Your task to perform on an android device: turn off location history Image 0: 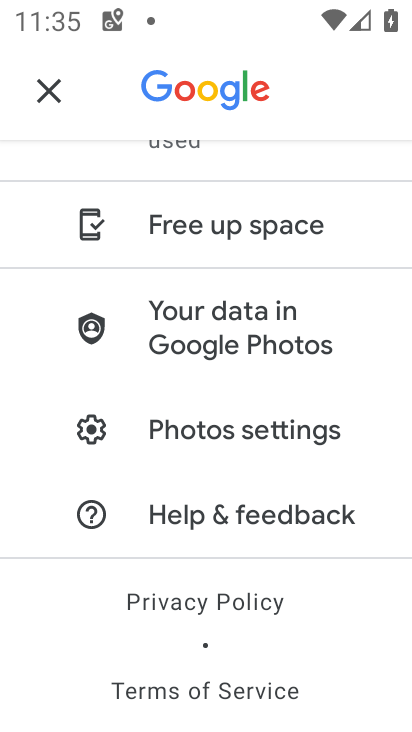
Step 0: press home button
Your task to perform on an android device: turn off location history Image 1: 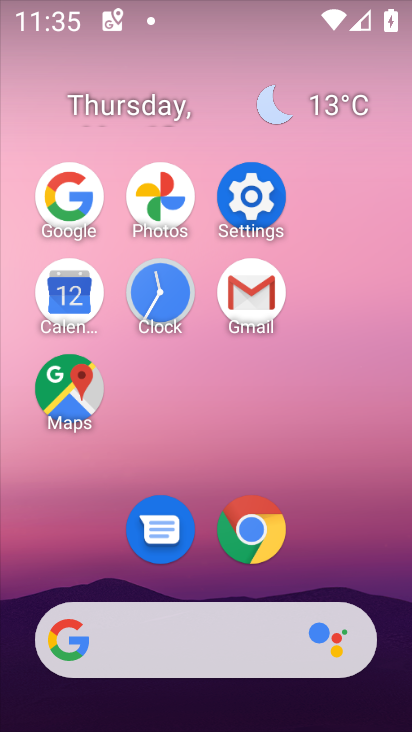
Step 1: click (212, 209)
Your task to perform on an android device: turn off location history Image 2: 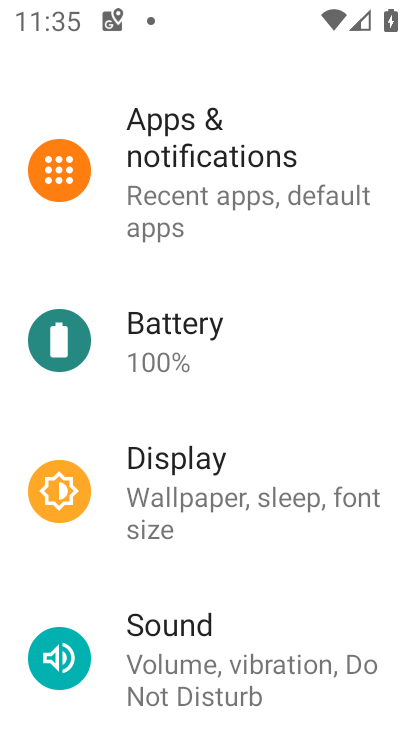
Step 2: drag from (251, 580) to (314, 144)
Your task to perform on an android device: turn off location history Image 3: 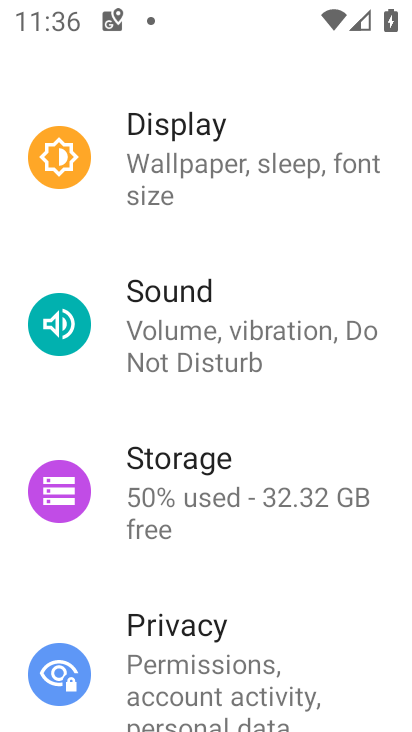
Step 3: drag from (344, 611) to (360, 206)
Your task to perform on an android device: turn off location history Image 4: 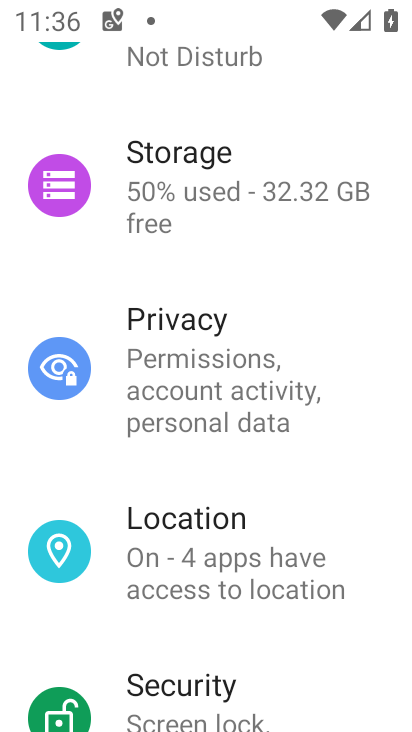
Step 4: click (293, 542)
Your task to perform on an android device: turn off location history Image 5: 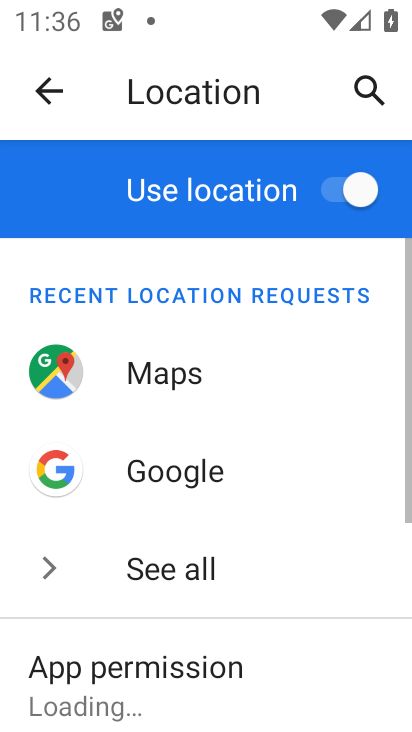
Step 5: drag from (294, 542) to (285, 196)
Your task to perform on an android device: turn off location history Image 6: 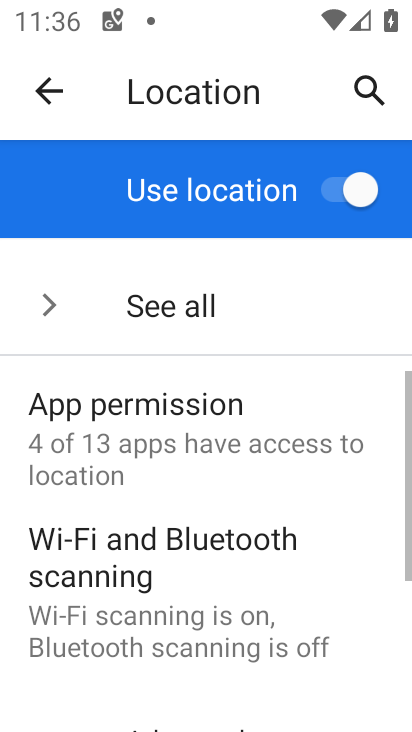
Step 6: drag from (281, 587) to (315, 200)
Your task to perform on an android device: turn off location history Image 7: 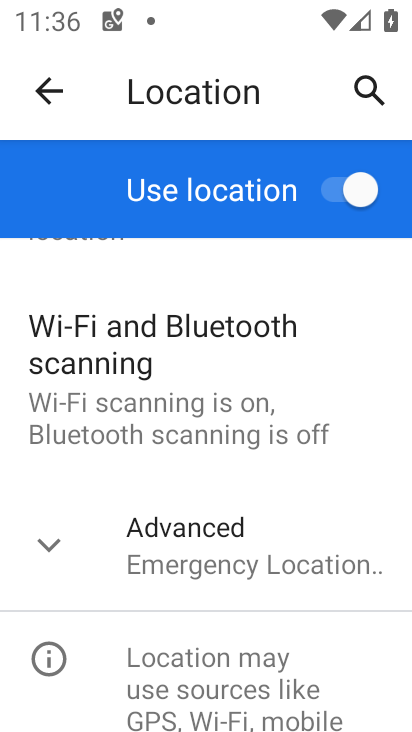
Step 7: click (235, 570)
Your task to perform on an android device: turn off location history Image 8: 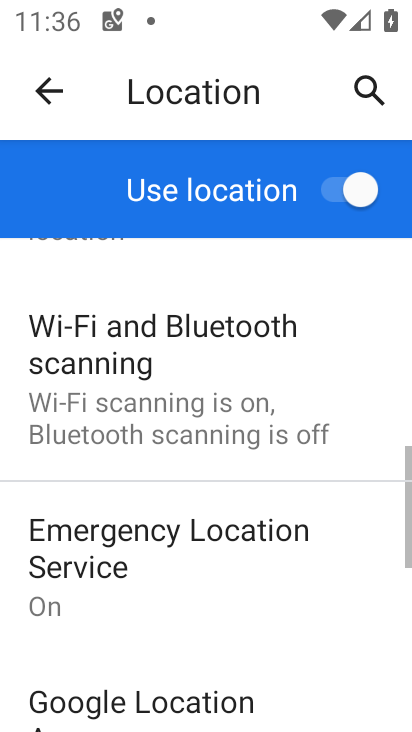
Step 8: drag from (235, 570) to (274, 182)
Your task to perform on an android device: turn off location history Image 9: 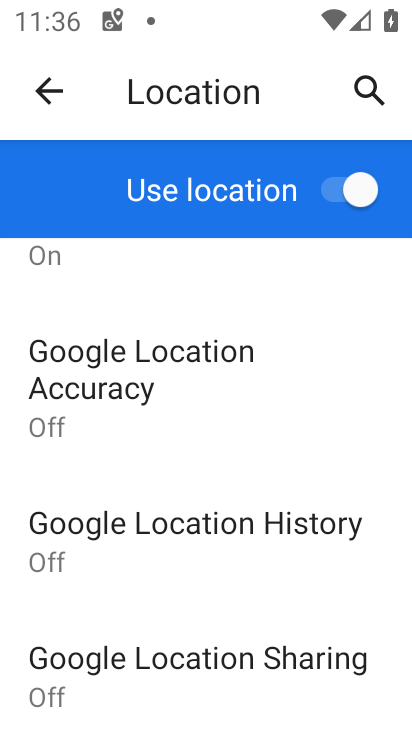
Step 9: click (259, 533)
Your task to perform on an android device: turn off location history Image 10: 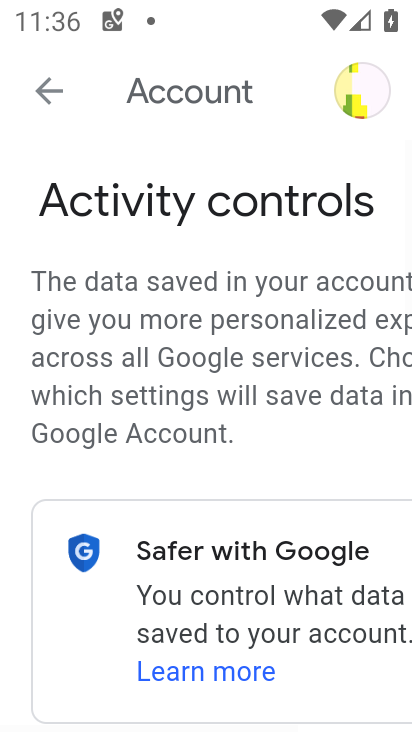
Step 10: task complete